Your task to perform on an android device: Show me popular games on the Play Store Image 0: 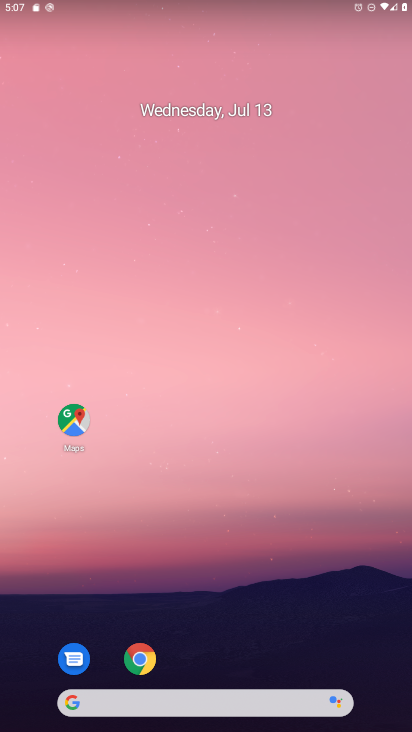
Step 0: drag from (289, 557) to (317, 66)
Your task to perform on an android device: Show me popular games on the Play Store Image 1: 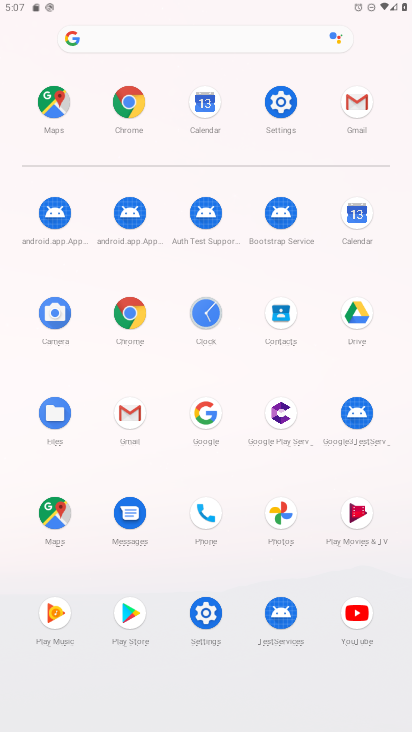
Step 1: click (130, 606)
Your task to perform on an android device: Show me popular games on the Play Store Image 2: 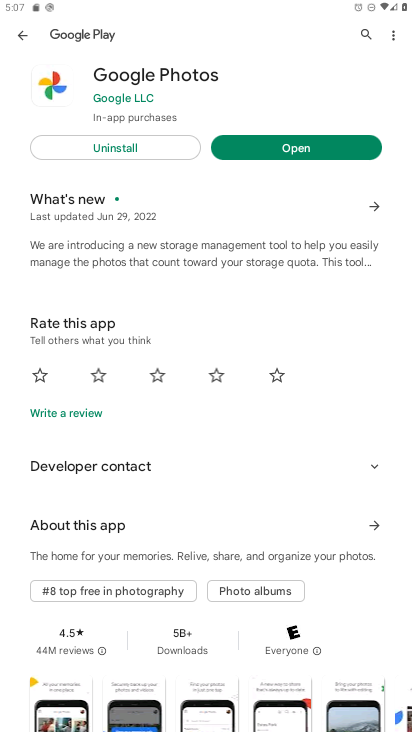
Step 2: click (17, 33)
Your task to perform on an android device: Show me popular games on the Play Store Image 3: 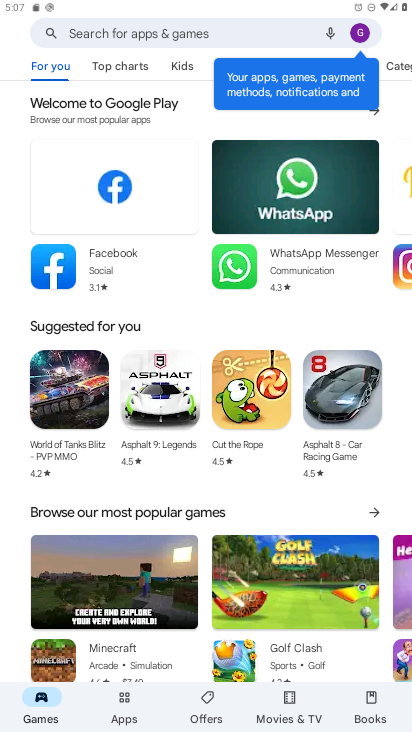
Step 3: task complete